Your task to perform on an android device: change timer sound Image 0: 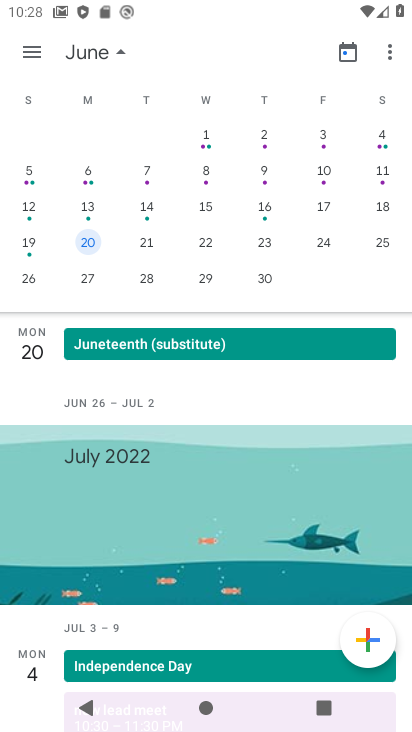
Step 0: press back button
Your task to perform on an android device: change timer sound Image 1: 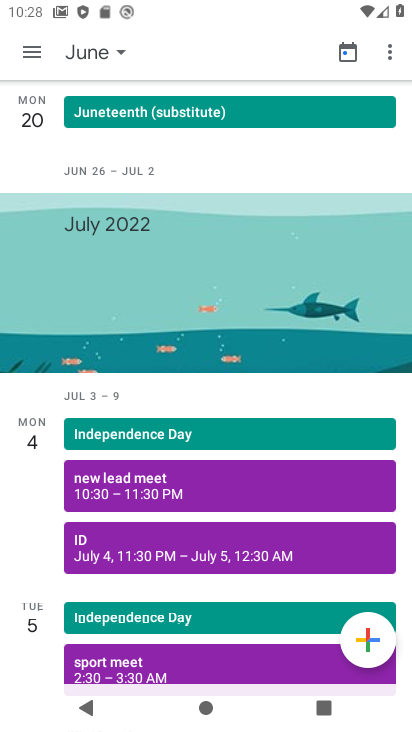
Step 1: press back button
Your task to perform on an android device: change timer sound Image 2: 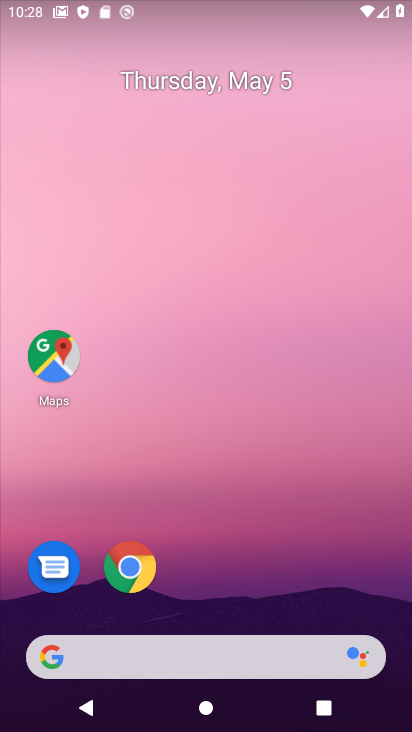
Step 2: drag from (219, 585) to (294, 4)
Your task to perform on an android device: change timer sound Image 3: 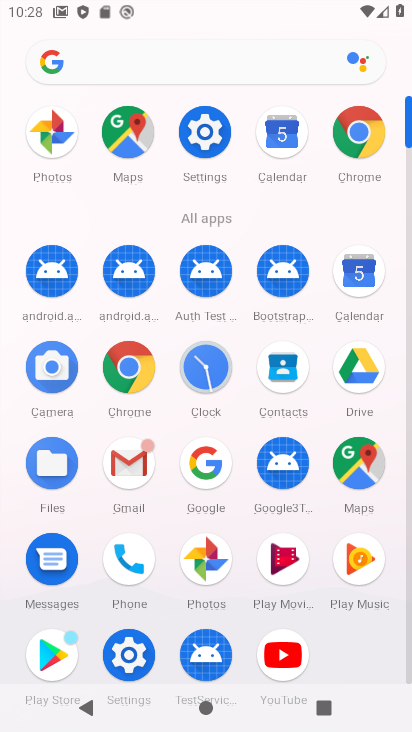
Step 3: click (214, 364)
Your task to perform on an android device: change timer sound Image 4: 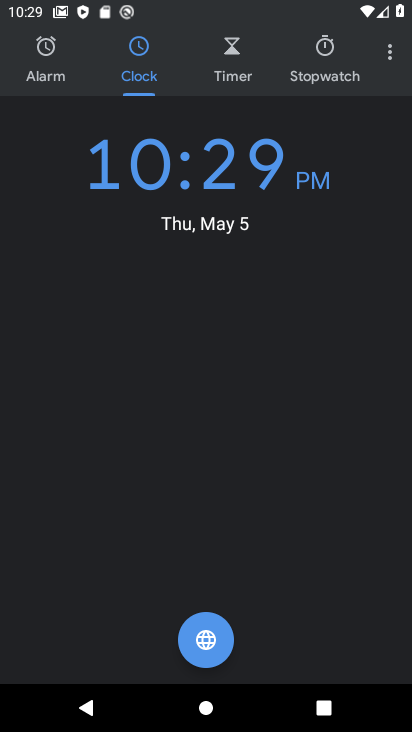
Step 4: click (390, 51)
Your task to perform on an android device: change timer sound Image 5: 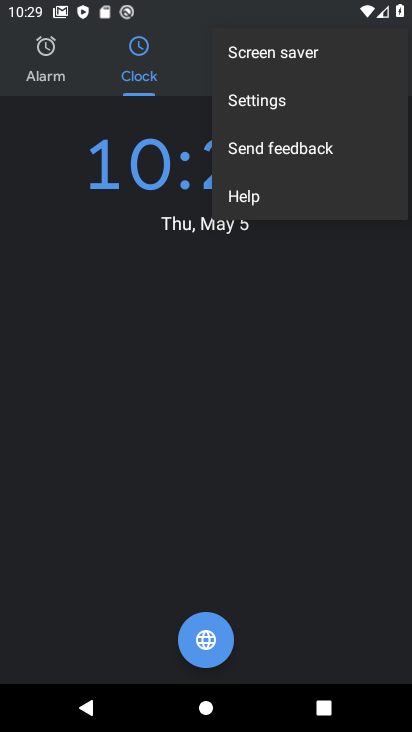
Step 5: click (259, 102)
Your task to perform on an android device: change timer sound Image 6: 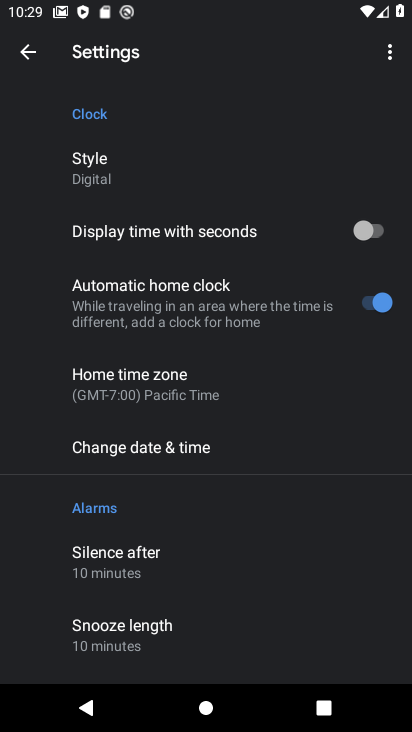
Step 6: drag from (155, 613) to (250, 137)
Your task to perform on an android device: change timer sound Image 7: 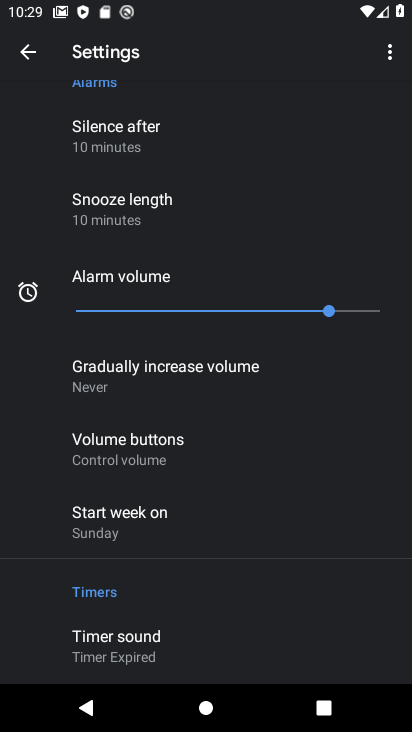
Step 7: click (136, 655)
Your task to perform on an android device: change timer sound Image 8: 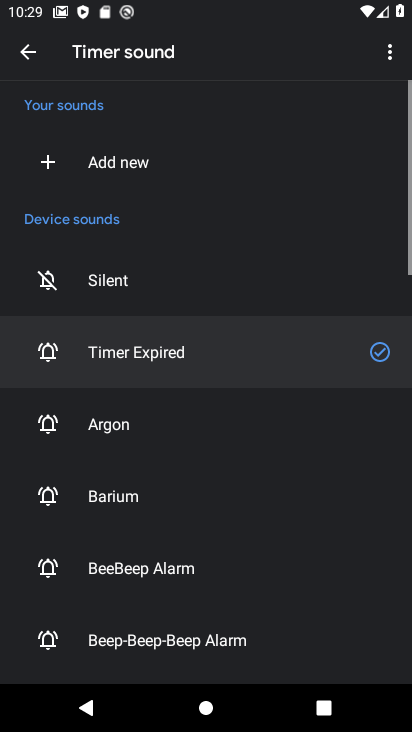
Step 8: click (125, 420)
Your task to perform on an android device: change timer sound Image 9: 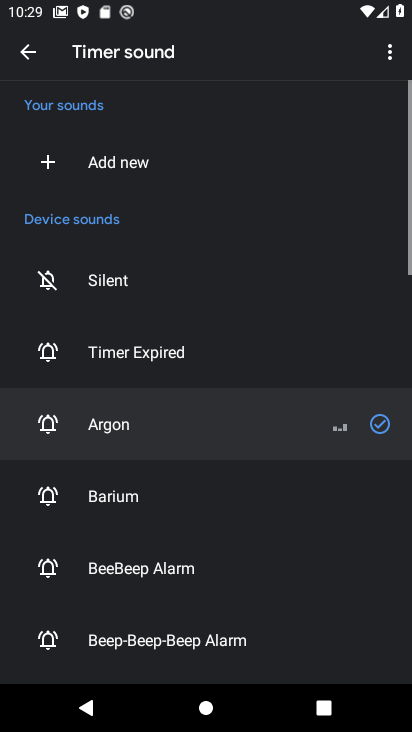
Step 9: task complete